Your task to perform on an android device: open app "WhatsApp Messenger" Image 0: 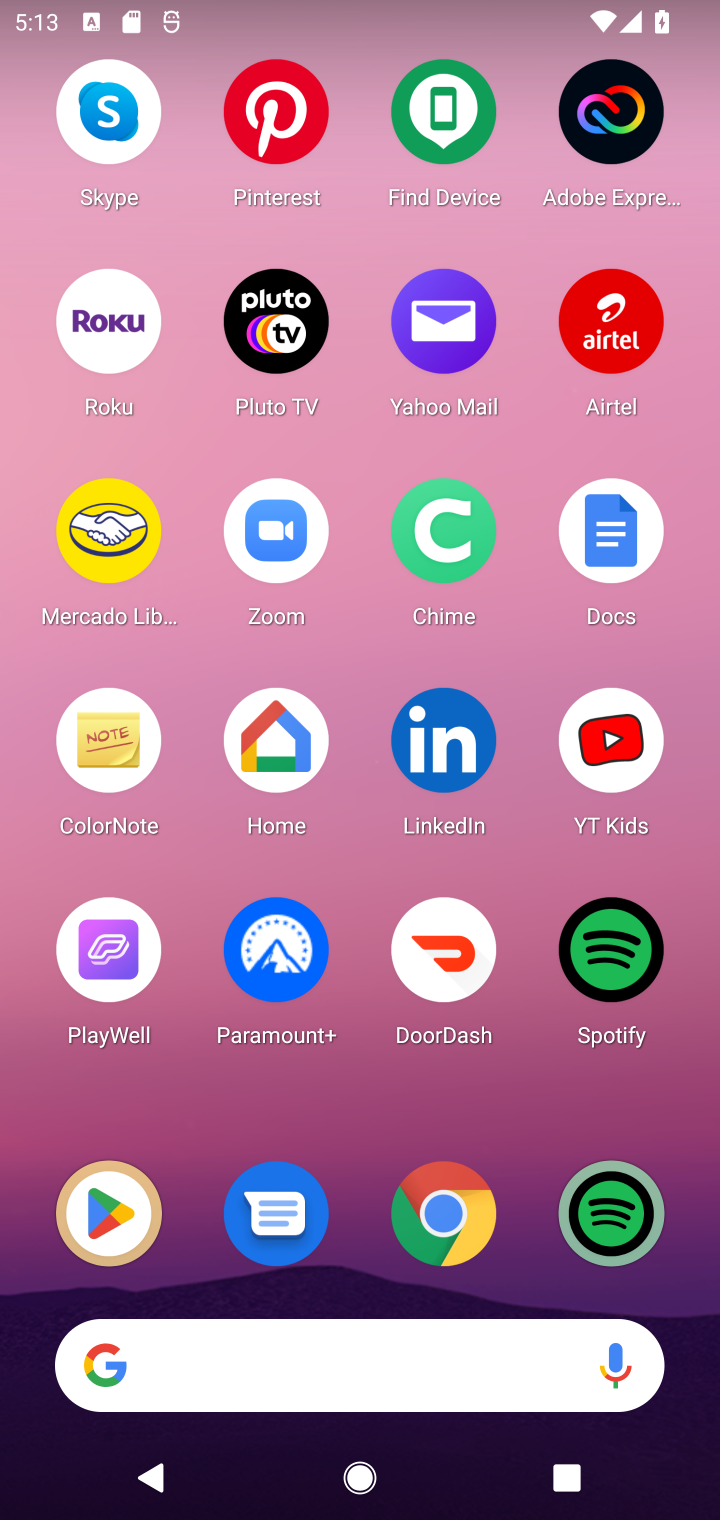
Step 0: drag from (524, 1113) to (534, 283)
Your task to perform on an android device: open app "WhatsApp Messenger" Image 1: 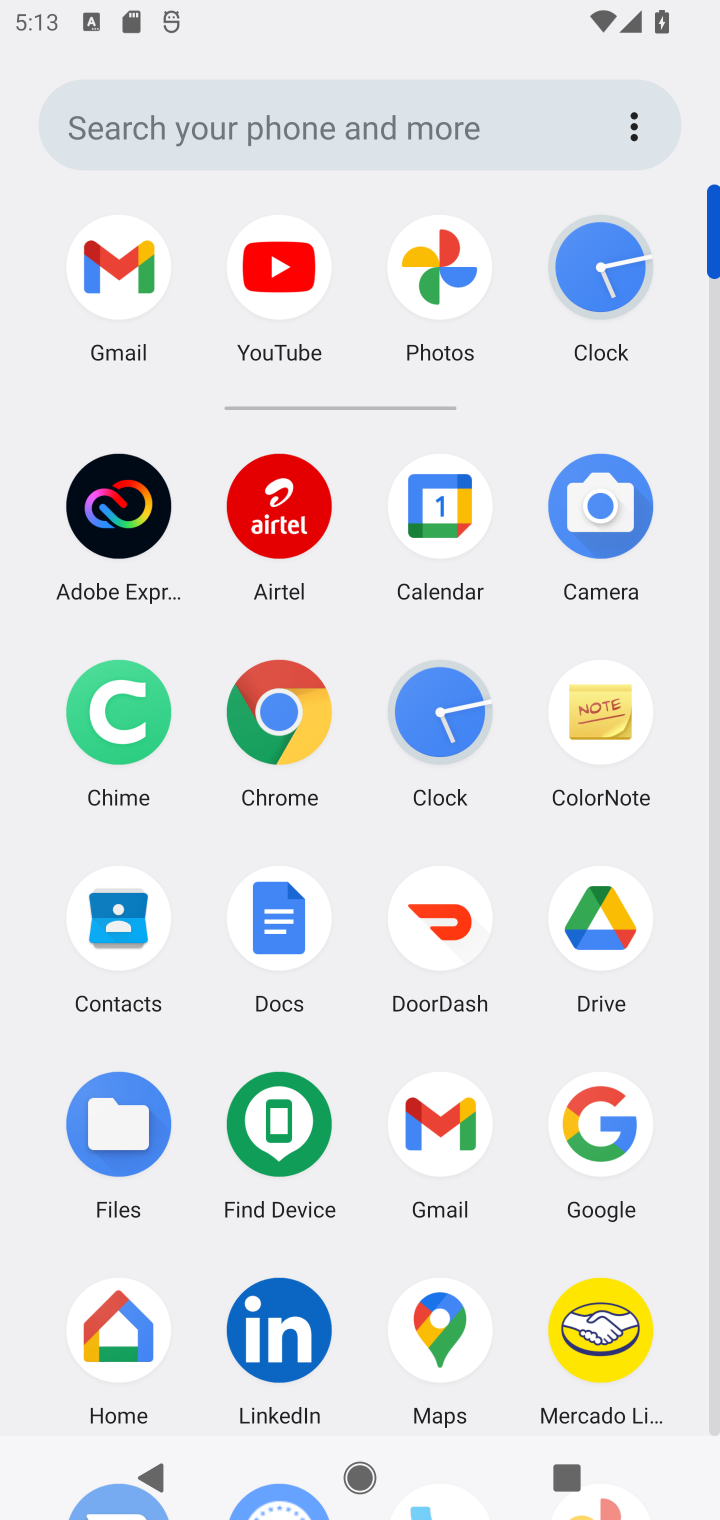
Step 1: drag from (355, 1230) to (417, 482)
Your task to perform on an android device: open app "WhatsApp Messenger" Image 2: 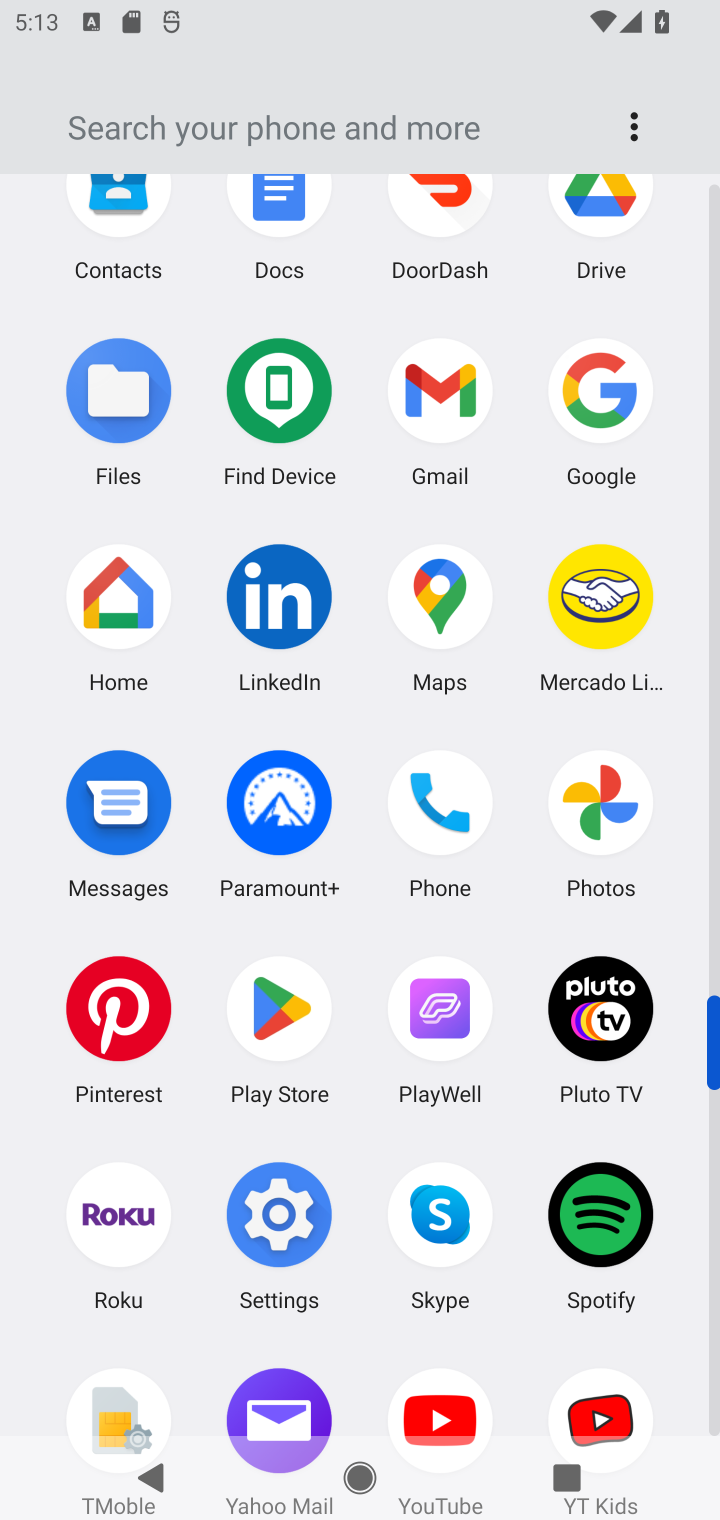
Step 2: click (234, 1005)
Your task to perform on an android device: open app "WhatsApp Messenger" Image 3: 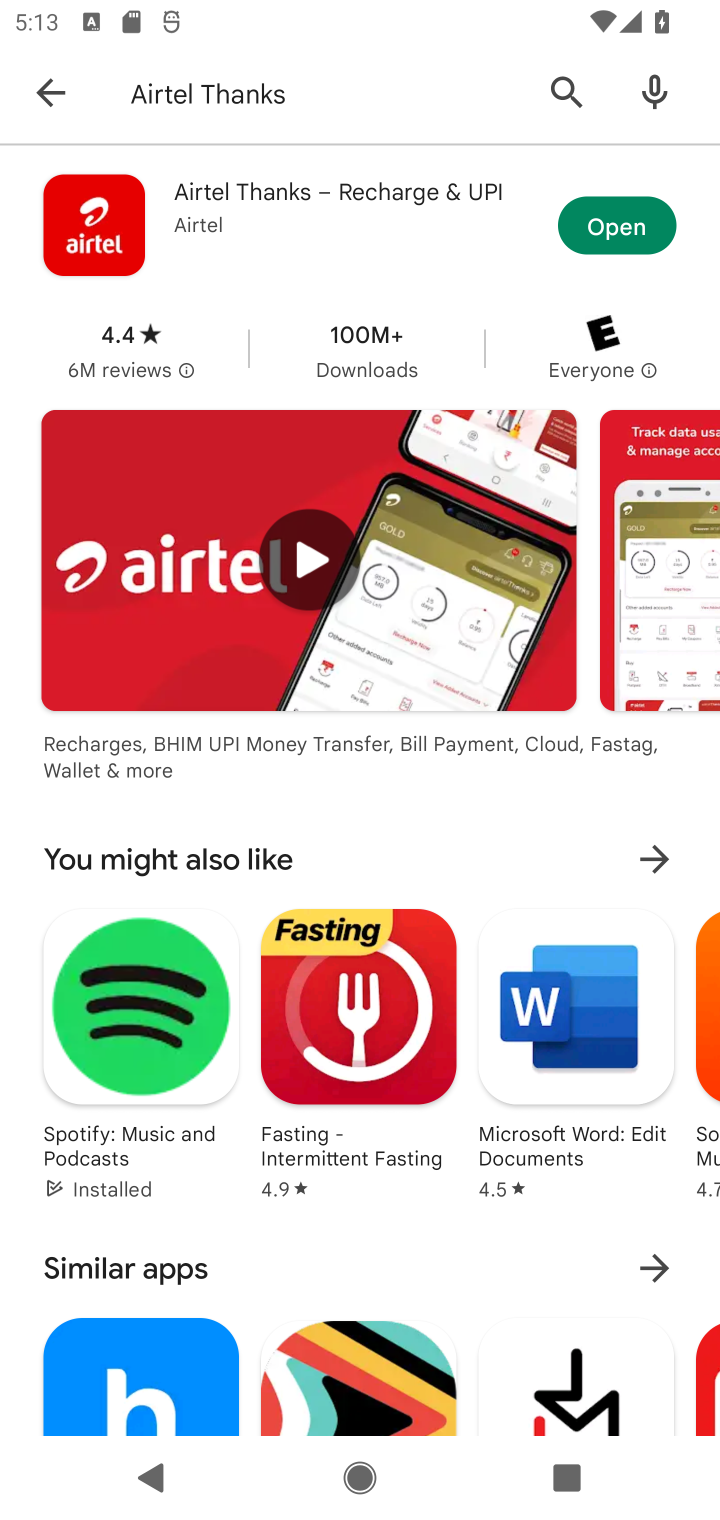
Step 3: click (439, 80)
Your task to perform on an android device: open app "WhatsApp Messenger" Image 4: 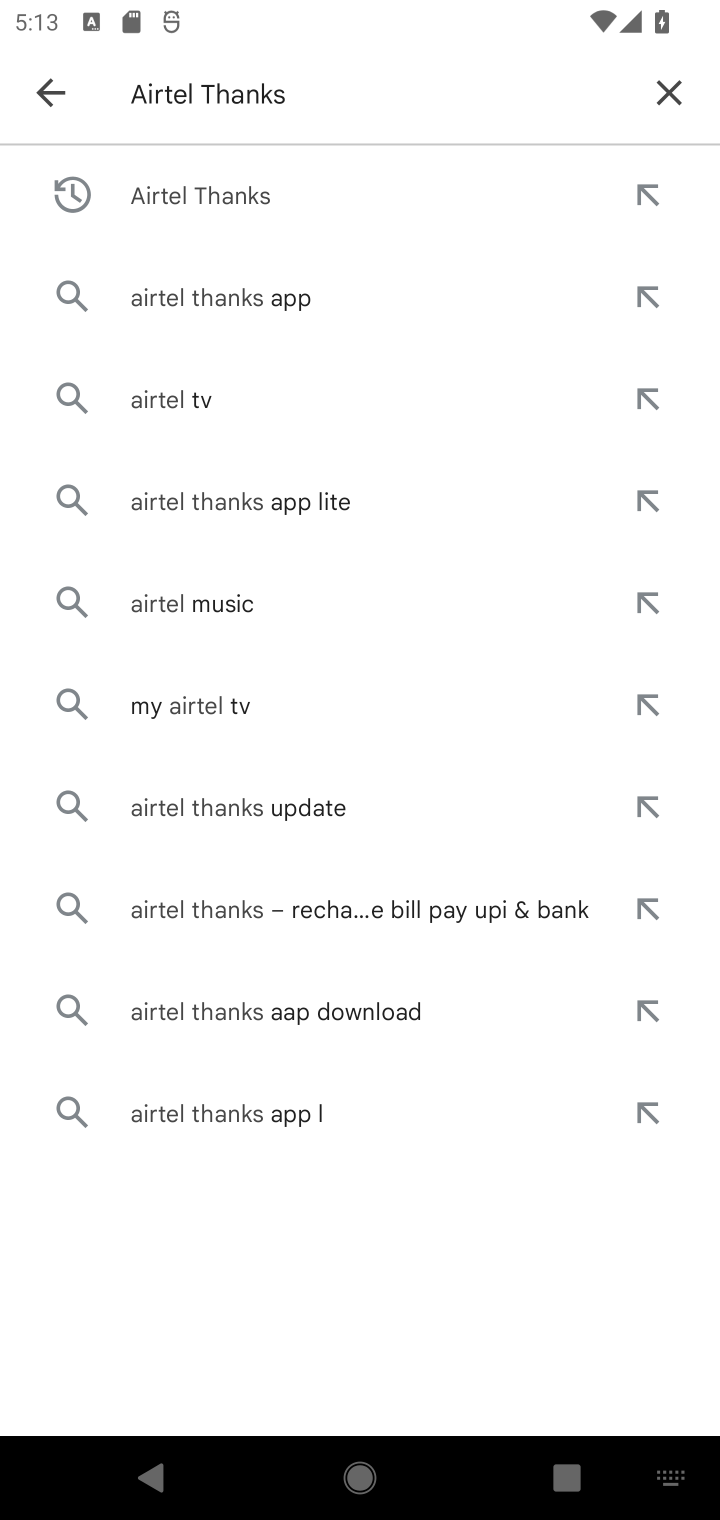
Step 4: click (678, 102)
Your task to perform on an android device: open app "WhatsApp Messenger" Image 5: 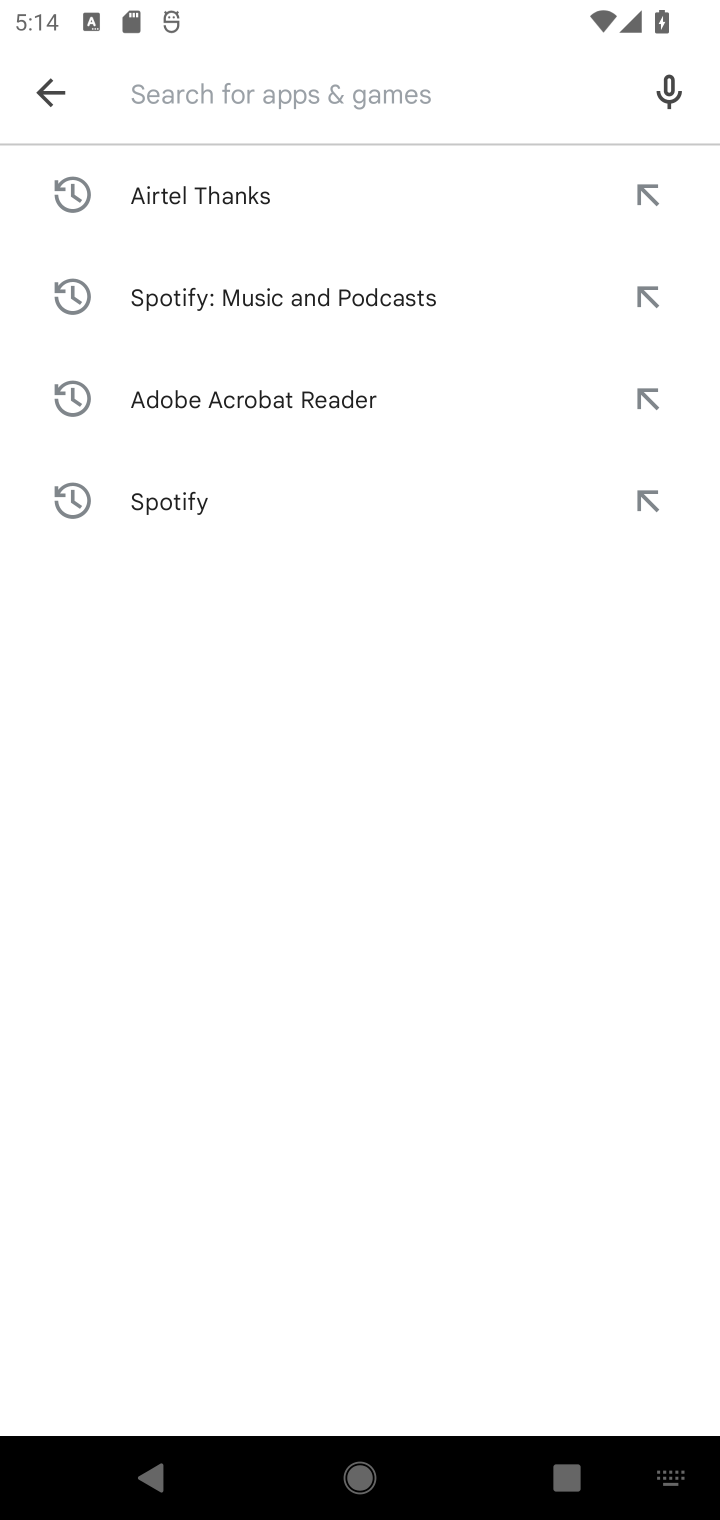
Step 5: type "WhatsApp Messenger"
Your task to perform on an android device: open app "WhatsApp Messenger" Image 6: 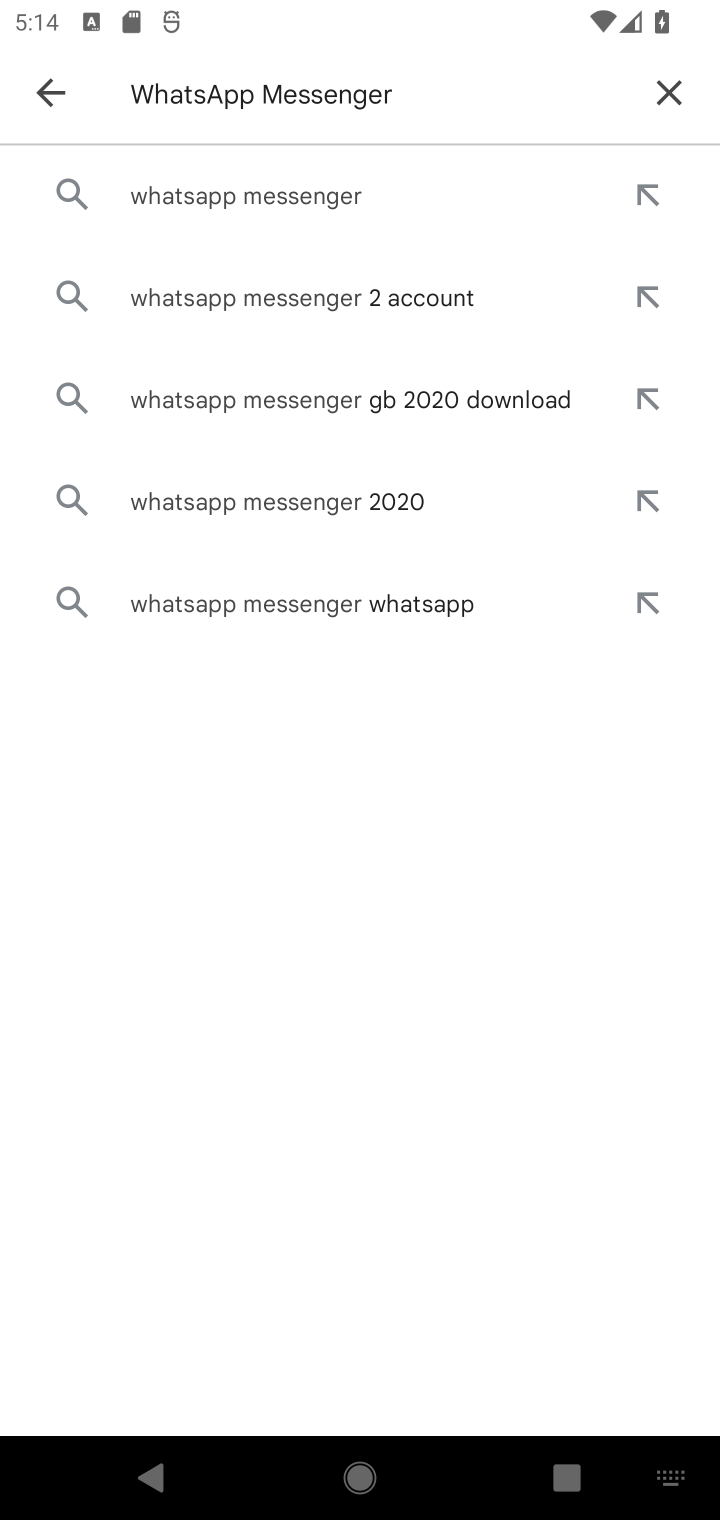
Step 6: press enter
Your task to perform on an android device: open app "WhatsApp Messenger" Image 7: 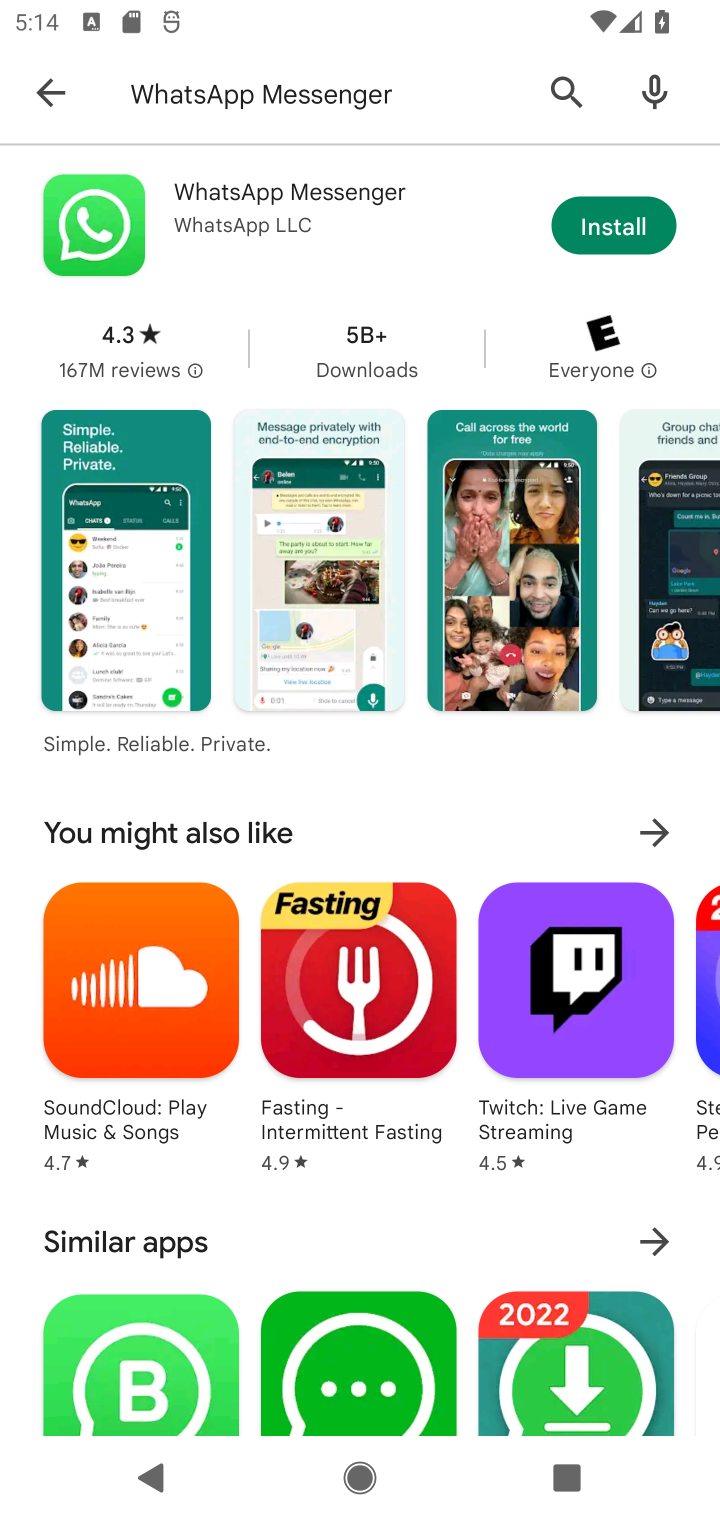
Step 7: click (390, 215)
Your task to perform on an android device: open app "WhatsApp Messenger" Image 8: 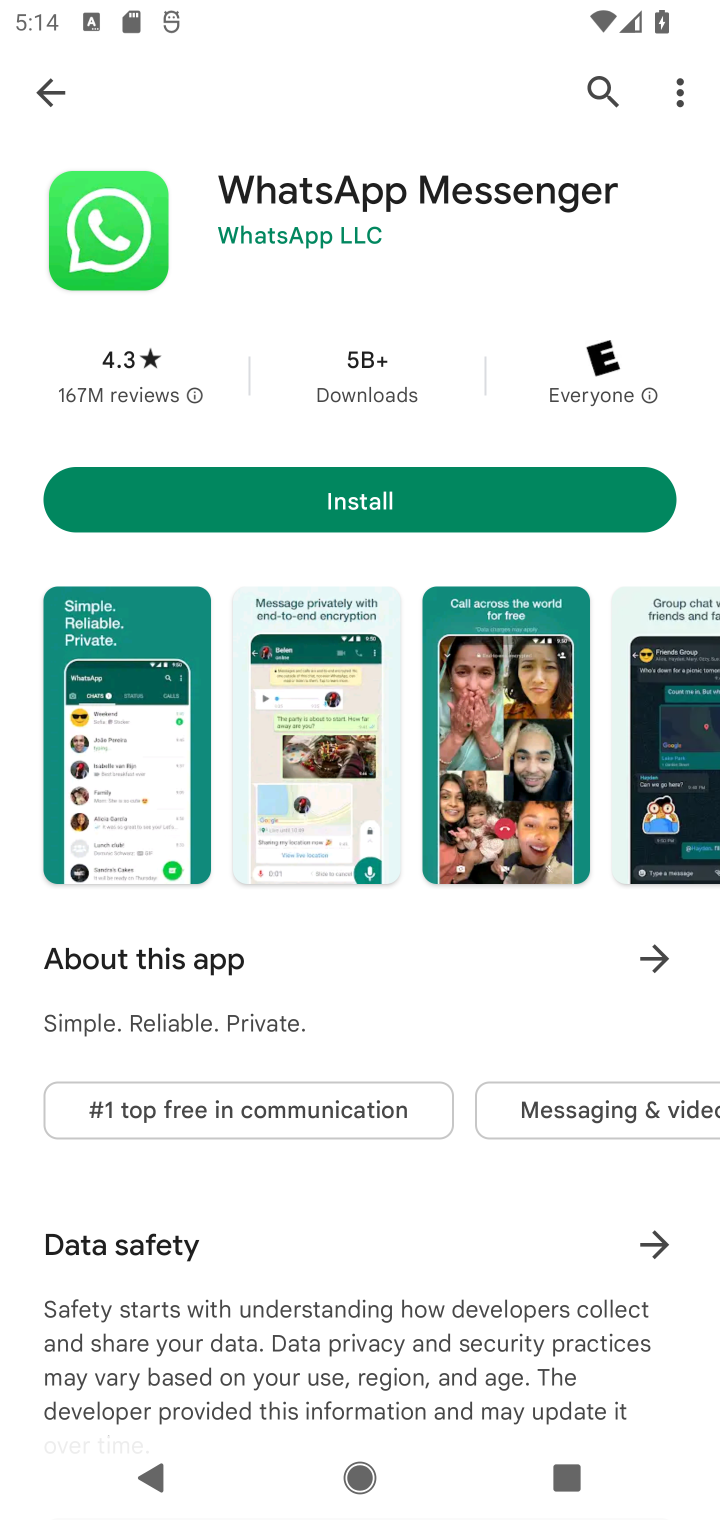
Step 8: task complete